Your task to perform on an android device: turn on the 24-hour format for clock Image 0: 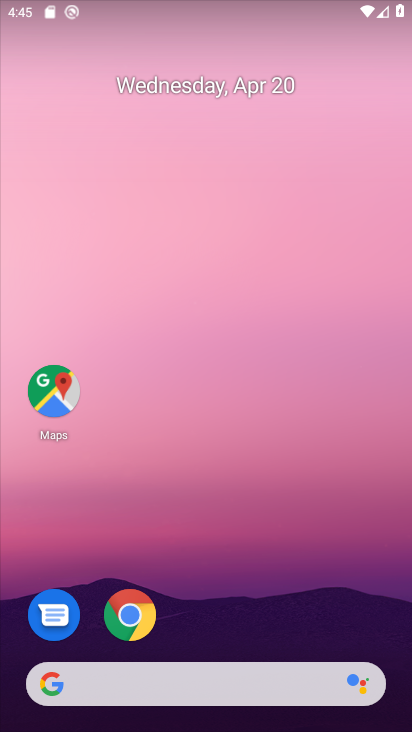
Step 0: drag from (241, 585) to (290, 80)
Your task to perform on an android device: turn on the 24-hour format for clock Image 1: 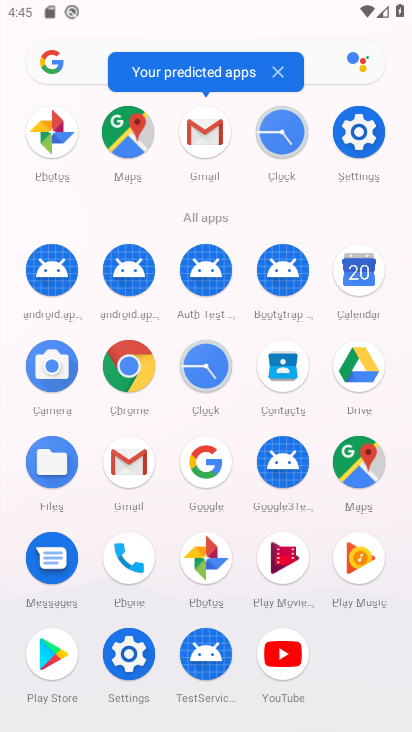
Step 1: click (271, 144)
Your task to perform on an android device: turn on the 24-hour format for clock Image 2: 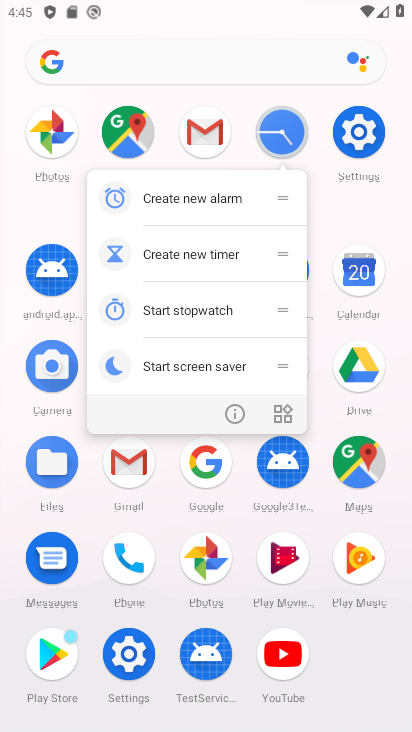
Step 2: click (271, 143)
Your task to perform on an android device: turn on the 24-hour format for clock Image 3: 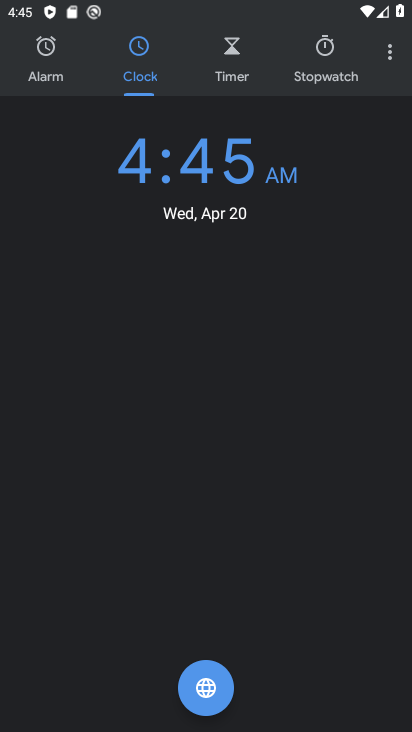
Step 3: click (385, 60)
Your task to perform on an android device: turn on the 24-hour format for clock Image 4: 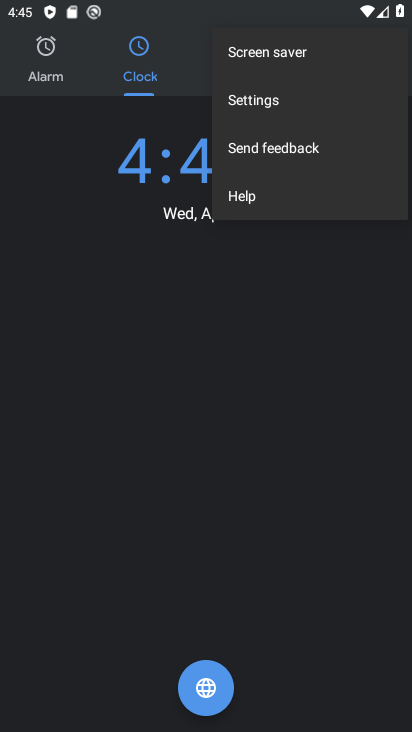
Step 4: click (348, 108)
Your task to perform on an android device: turn on the 24-hour format for clock Image 5: 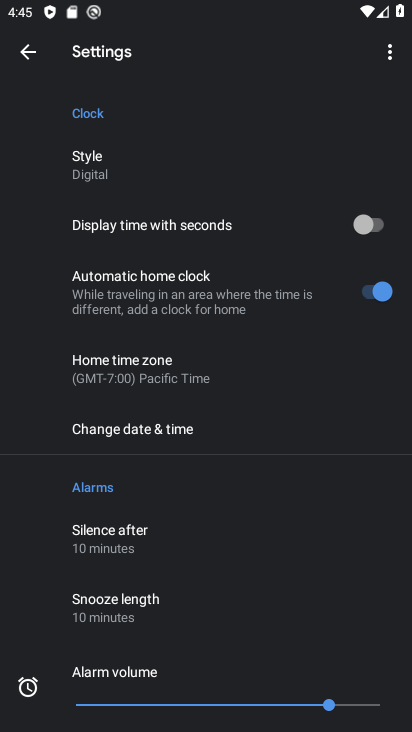
Step 5: click (157, 425)
Your task to perform on an android device: turn on the 24-hour format for clock Image 6: 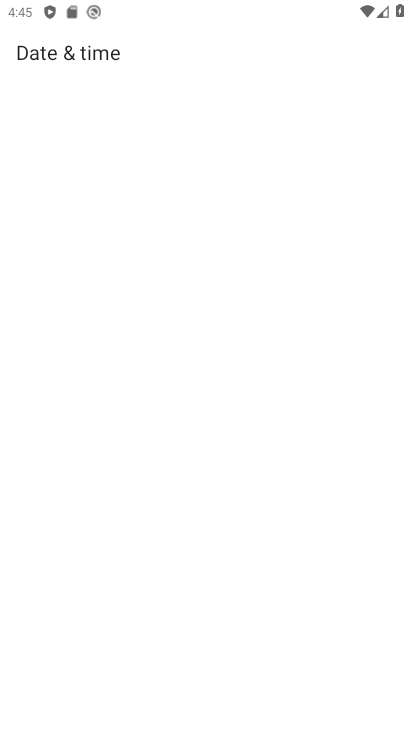
Step 6: drag from (172, 564) to (203, 179)
Your task to perform on an android device: turn on the 24-hour format for clock Image 7: 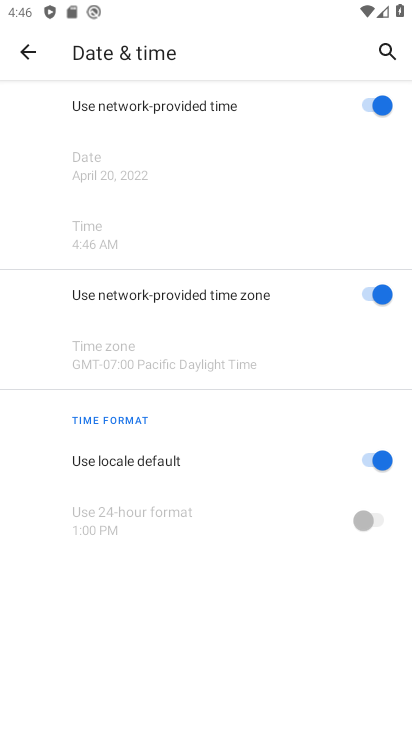
Step 7: click (363, 466)
Your task to perform on an android device: turn on the 24-hour format for clock Image 8: 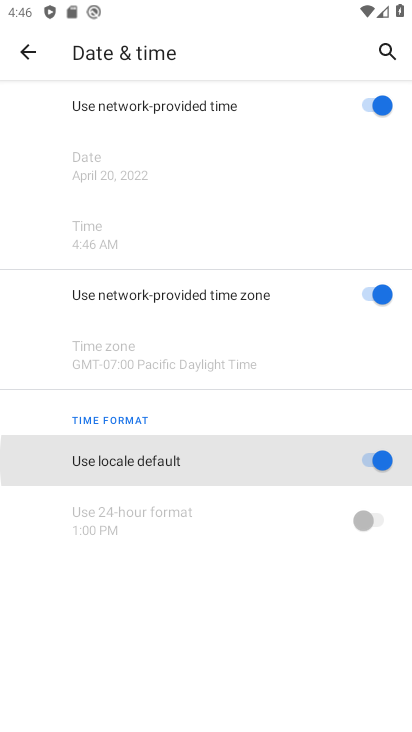
Step 8: click (367, 523)
Your task to perform on an android device: turn on the 24-hour format for clock Image 9: 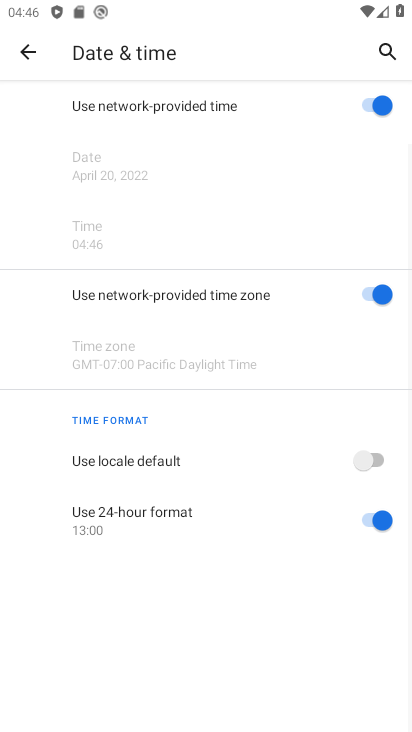
Step 9: task complete